Your task to perform on an android device: toggle notifications settings in the gmail app Image 0: 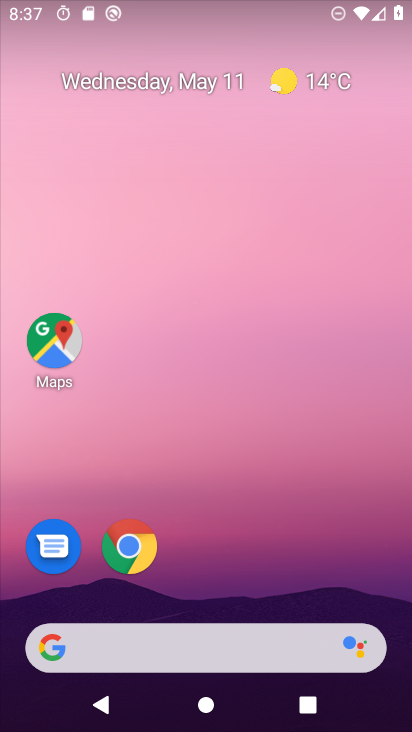
Step 0: drag from (215, 638) to (175, 268)
Your task to perform on an android device: toggle notifications settings in the gmail app Image 1: 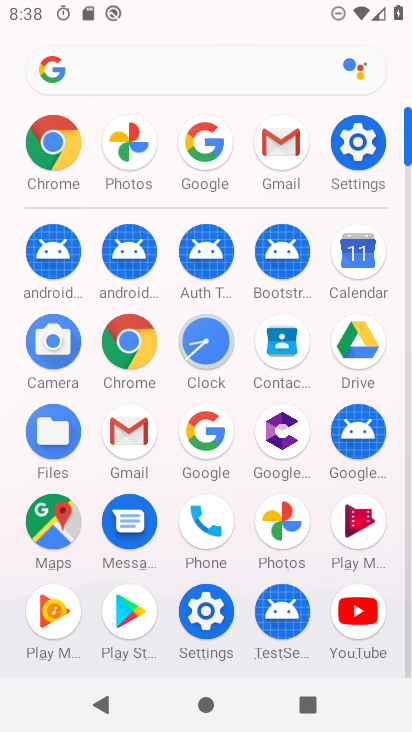
Step 1: click (118, 443)
Your task to perform on an android device: toggle notifications settings in the gmail app Image 2: 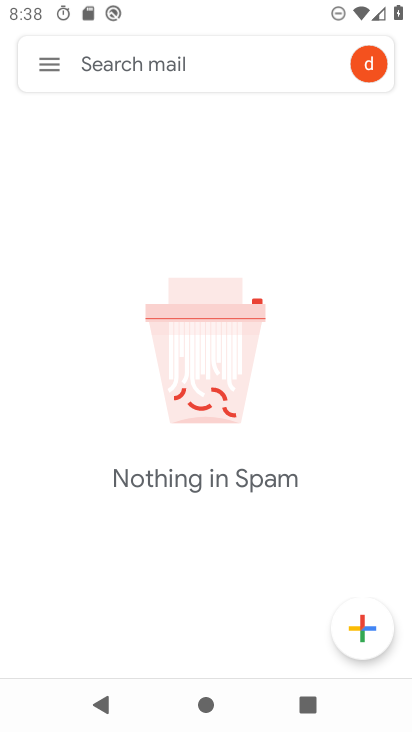
Step 2: click (50, 64)
Your task to perform on an android device: toggle notifications settings in the gmail app Image 3: 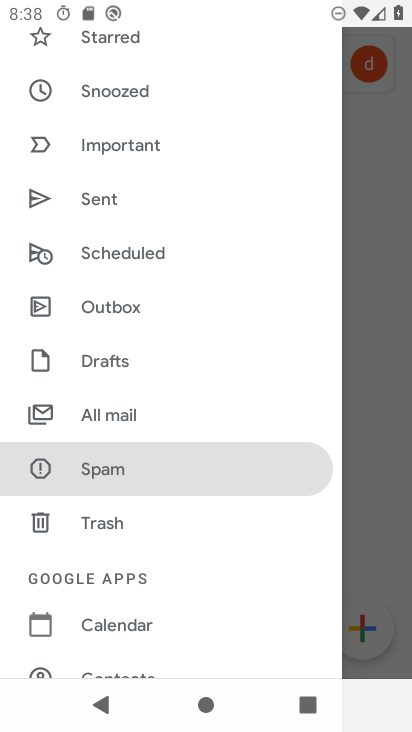
Step 3: drag from (151, 507) to (158, 36)
Your task to perform on an android device: toggle notifications settings in the gmail app Image 4: 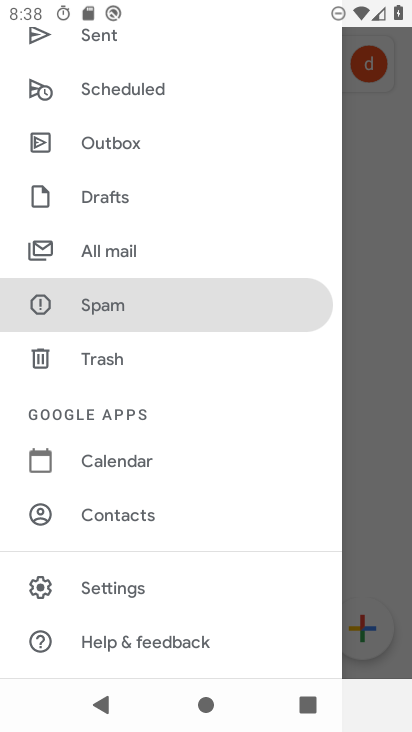
Step 4: click (125, 585)
Your task to perform on an android device: toggle notifications settings in the gmail app Image 5: 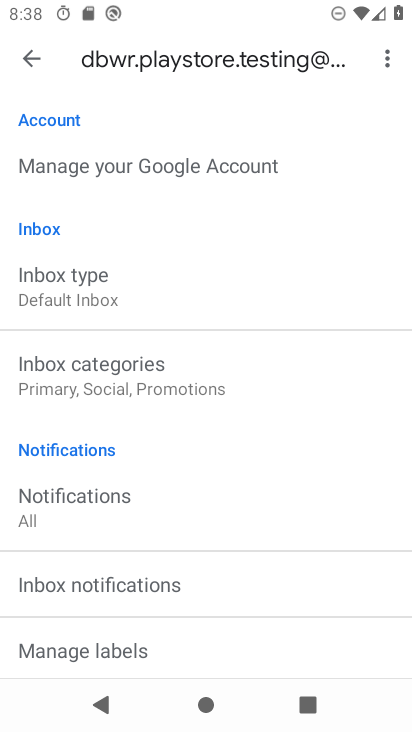
Step 5: drag from (146, 567) to (147, 152)
Your task to perform on an android device: toggle notifications settings in the gmail app Image 6: 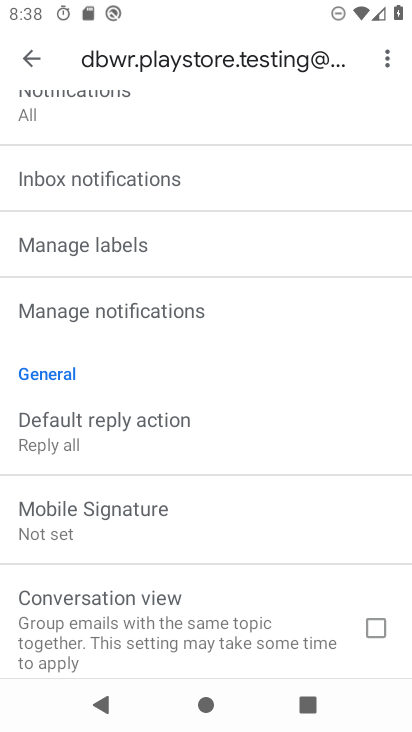
Step 6: click (149, 307)
Your task to perform on an android device: toggle notifications settings in the gmail app Image 7: 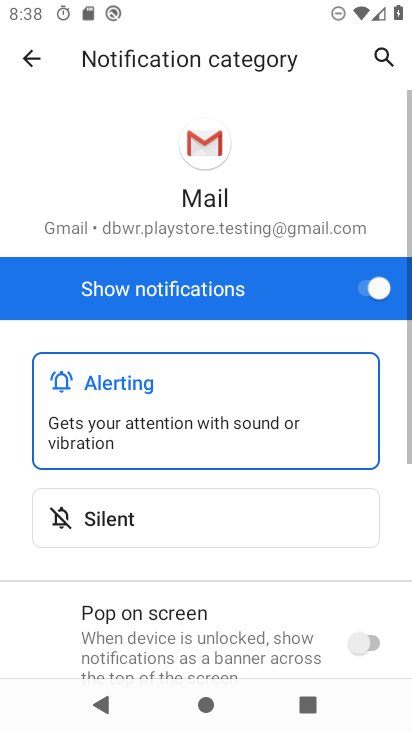
Step 7: click (376, 289)
Your task to perform on an android device: toggle notifications settings in the gmail app Image 8: 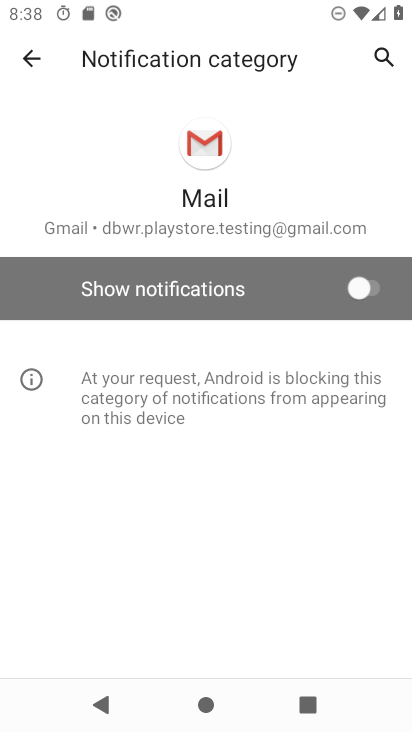
Step 8: task complete